Your task to perform on an android device: find photos in the google photos app Image 0: 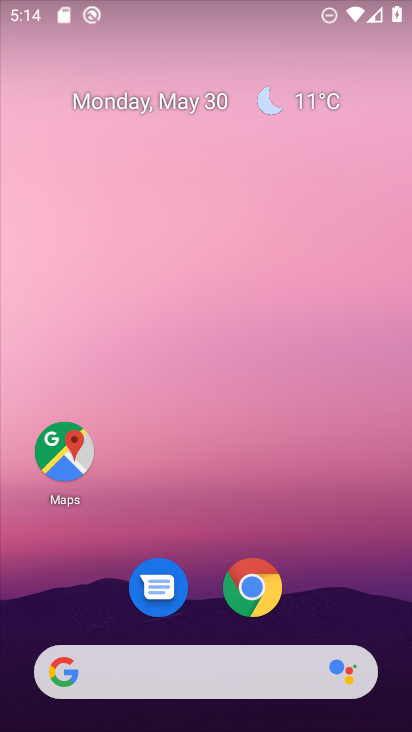
Step 0: drag from (332, 564) to (216, 20)
Your task to perform on an android device: find photos in the google photos app Image 1: 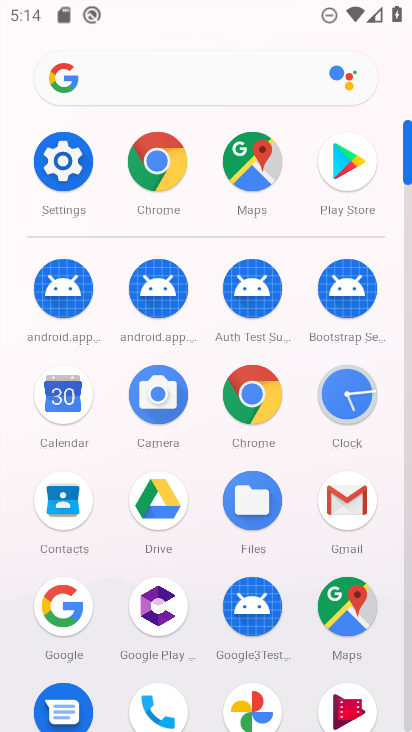
Step 1: drag from (4, 546) to (10, 308)
Your task to perform on an android device: find photos in the google photos app Image 2: 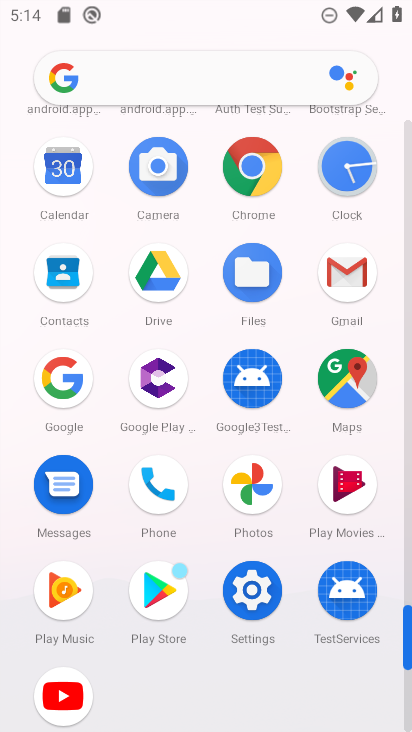
Step 2: click (251, 479)
Your task to perform on an android device: find photos in the google photos app Image 3: 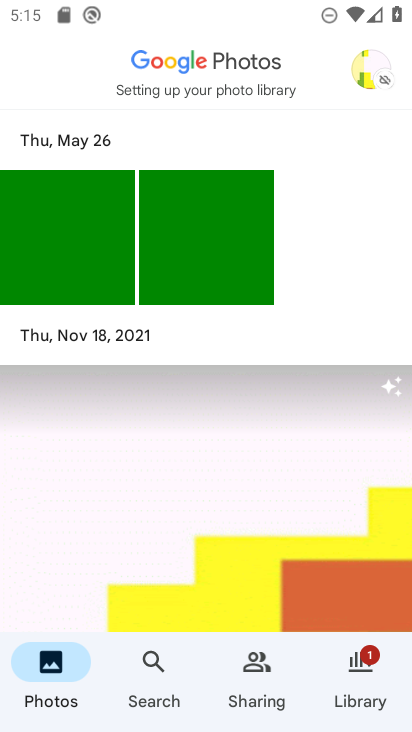
Step 3: task complete